Your task to perform on an android device: add a contact in the contacts app Image 0: 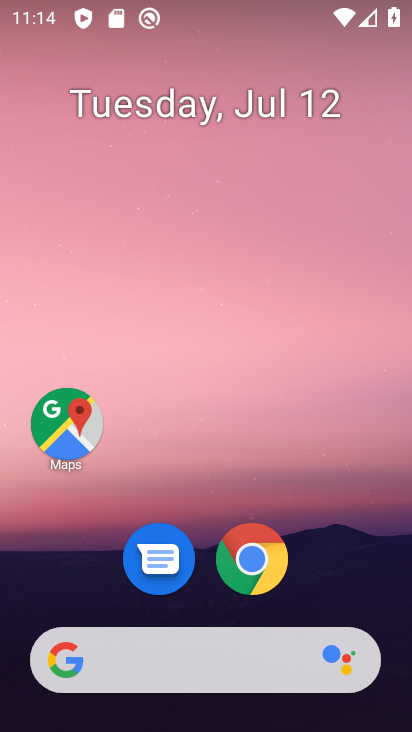
Step 0: drag from (159, 566) to (164, 411)
Your task to perform on an android device: add a contact in the contacts app Image 1: 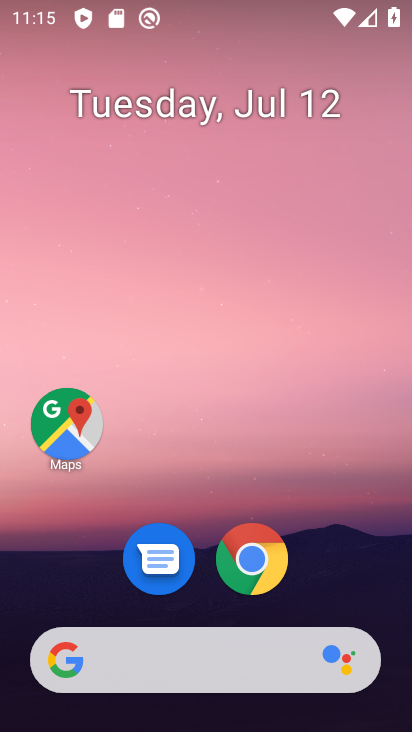
Step 1: drag from (145, 631) to (238, 307)
Your task to perform on an android device: add a contact in the contacts app Image 2: 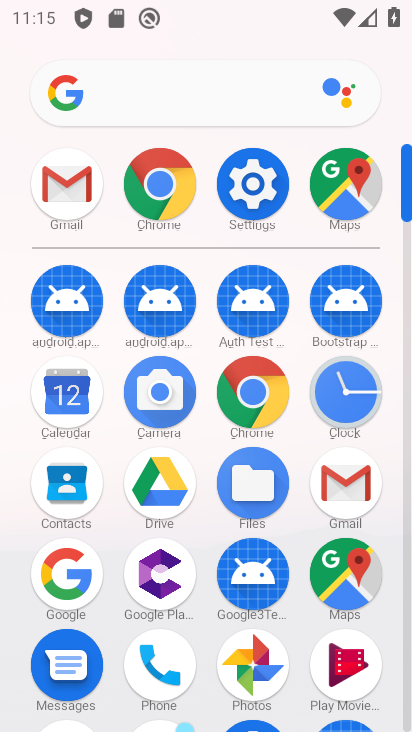
Step 2: click (64, 498)
Your task to perform on an android device: add a contact in the contacts app Image 3: 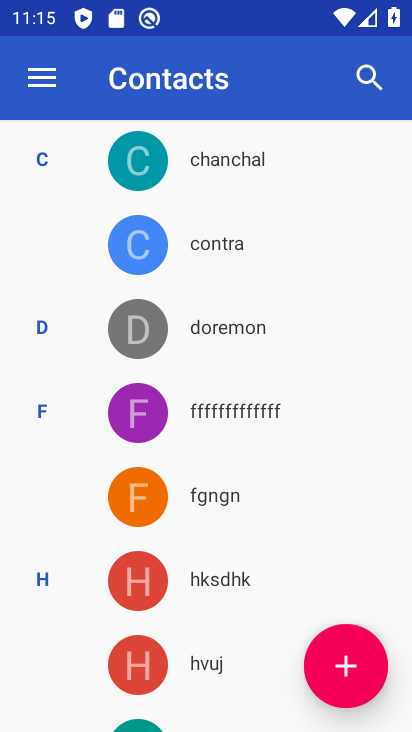
Step 3: click (323, 646)
Your task to perform on an android device: add a contact in the contacts app Image 4: 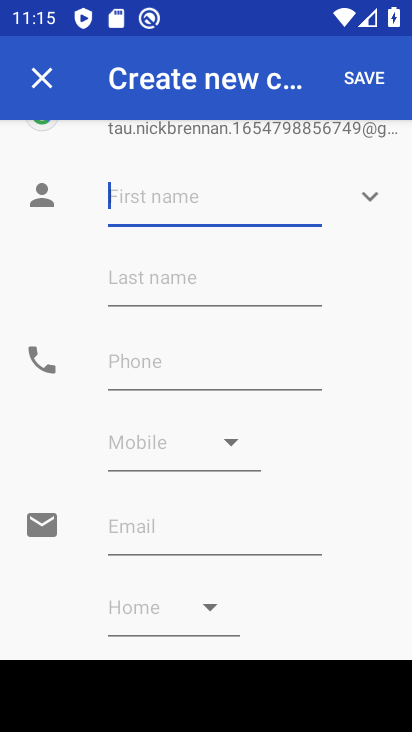
Step 4: type "hjfjf"
Your task to perform on an android device: add a contact in the contacts app Image 5: 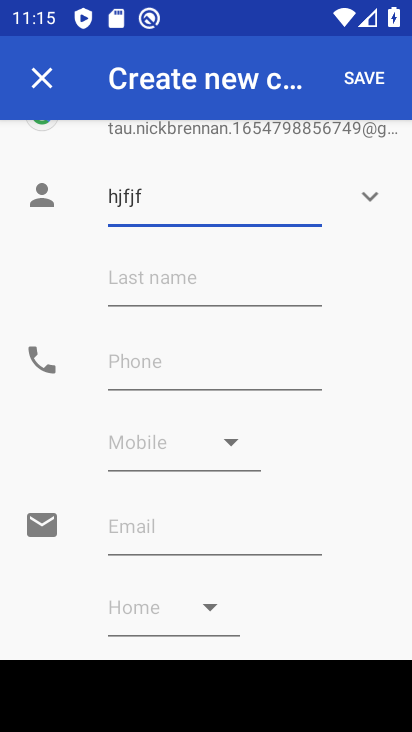
Step 5: click (196, 349)
Your task to perform on an android device: add a contact in the contacts app Image 6: 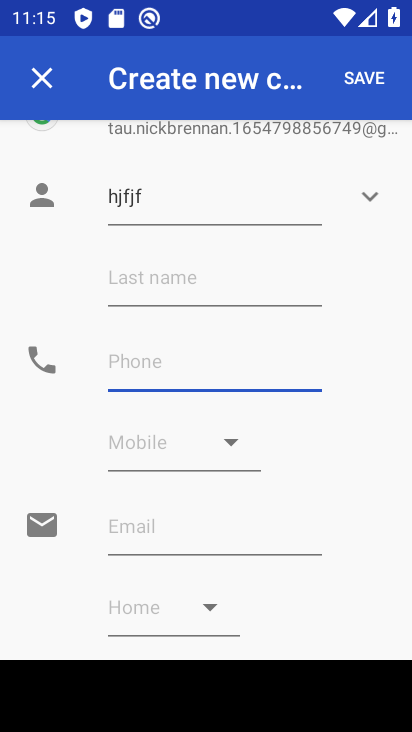
Step 6: type "657569658"
Your task to perform on an android device: add a contact in the contacts app Image 7: 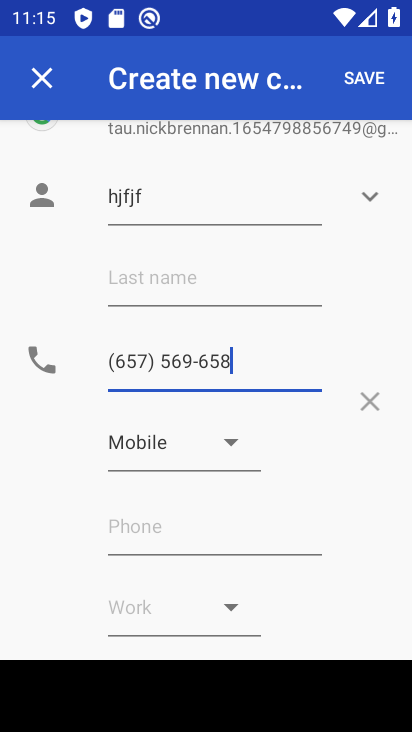
Step 7: click (372, 87)
Your task to perform on an android device: add a contact in the contacts app Image 8: 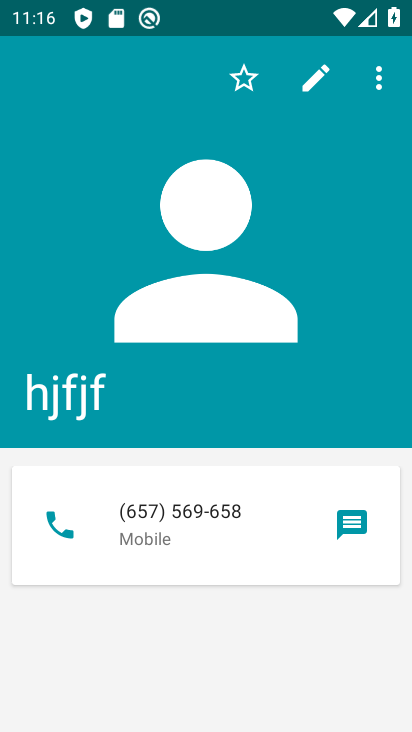
Step 8: task complete